Your task to perform on an android device: Do I have any events this weekend? Image 0: 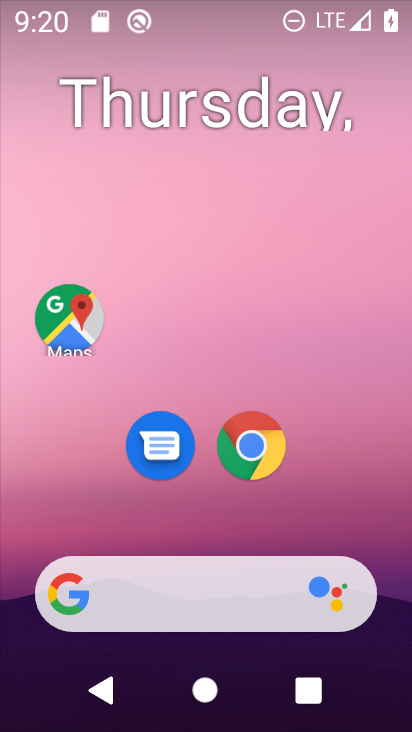
Step 0: drag from (385, 630) to (264, 86)
Your task to perform on an android device: Do I have any events this weekend? Image 1: 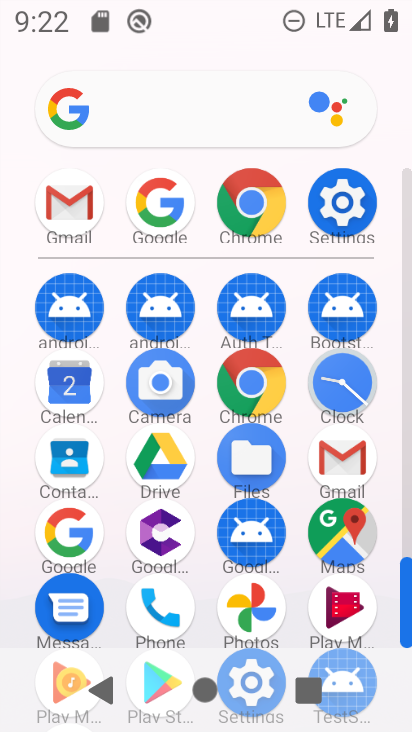
Step 1: click (62, 399)
Your task to perform on an android device: Do I have any events this weekend? Image 2: 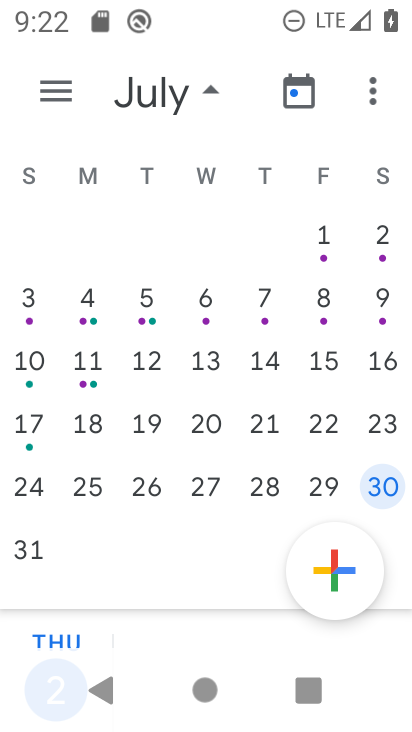
Step 2: task complete